Your task to perform on an android device: delete location history Image 0: 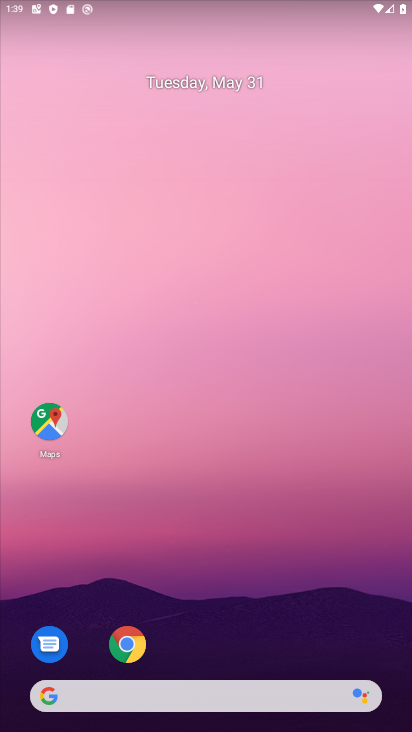
Step 0: click (37, 405)
Your task to perform on an android device: delete location history Image 1: 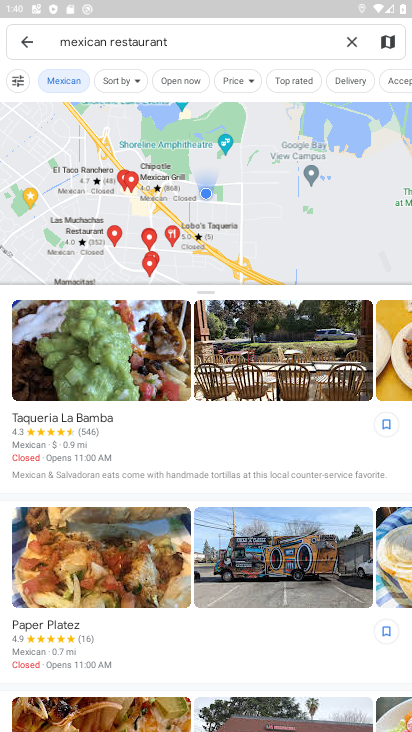
Step 1: click (25, 45)
Your task to perform on an android device: delete location history Image 2: 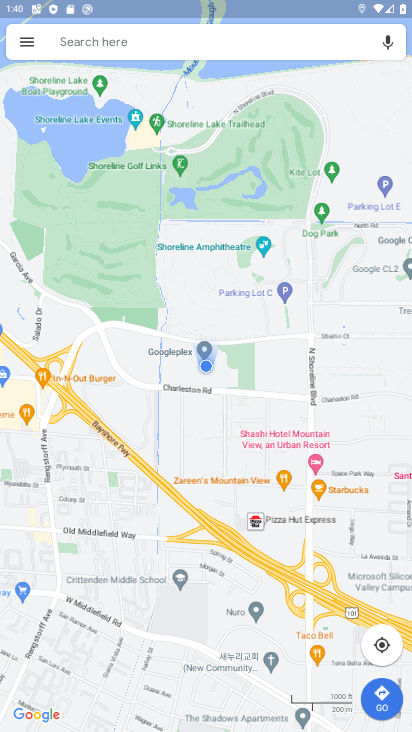
Step 2: click (27, 39)
Your task to perform on an android device: delete location history Image 3: 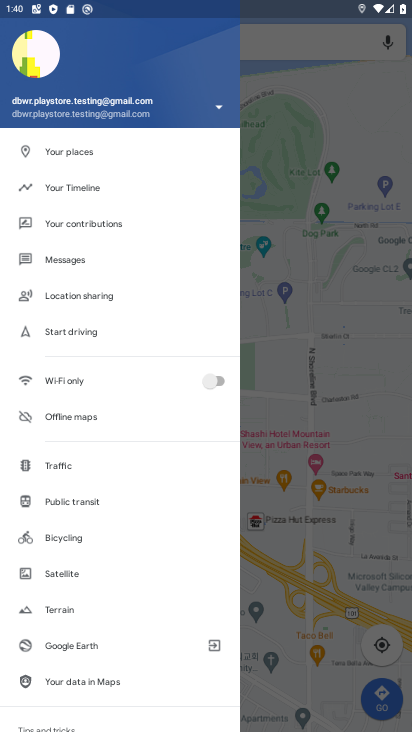
Step 3: click (58, 188)
Your task to perform on an android device: delete location history Image 4: 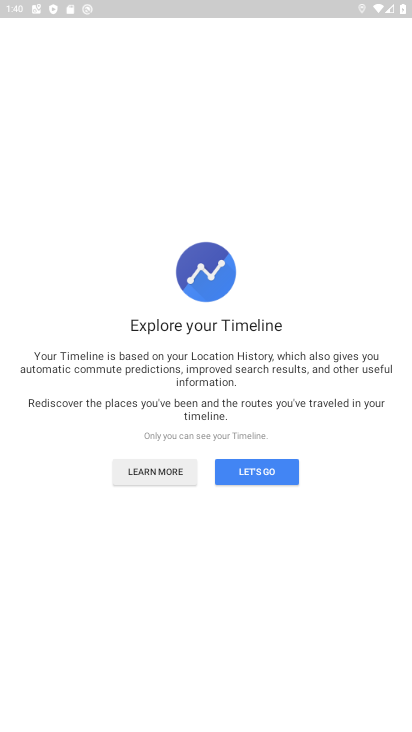
Step 4: click (249, 474)
Your task to perform on an android device: delete location history Image 5: 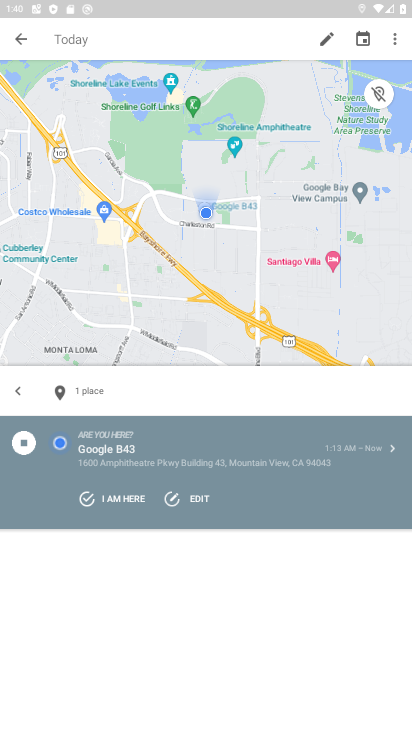
Step 5: click (390, 38)
Your task to perform on an android device: delete location history Image 6: 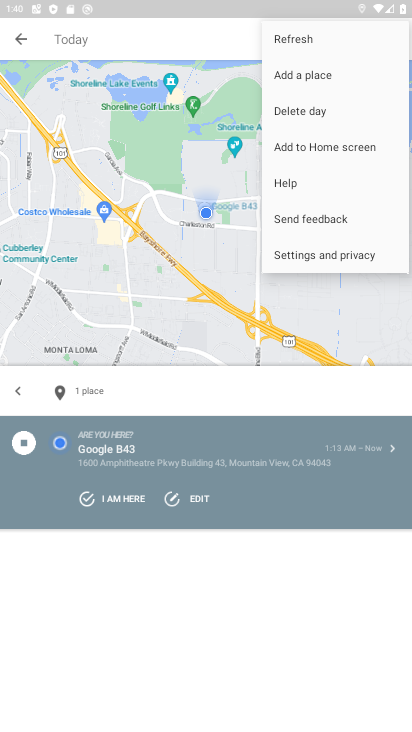
Step 6: click (310, 258)
Your task to perform on an android device: delete location history Image 7: 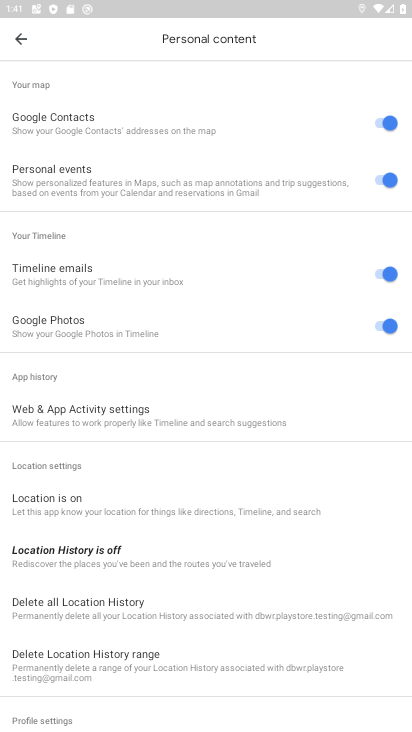
Step 7: click (58, 606)
Your task to perform on an android device: delete location history Image 8: 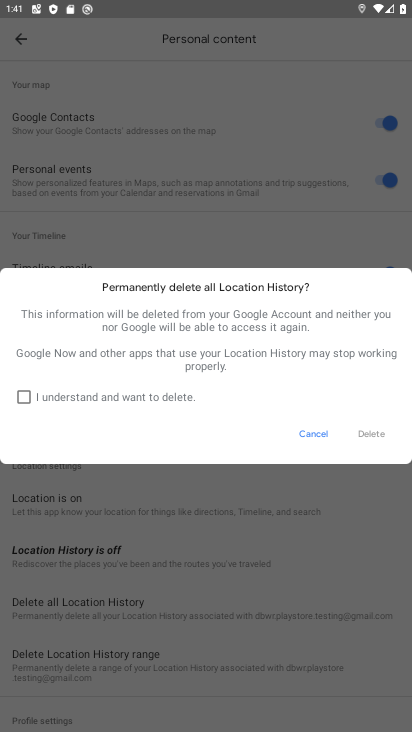
Step 8: click (15, 398)
Your task to perform on an android device: delete location history Image 9: 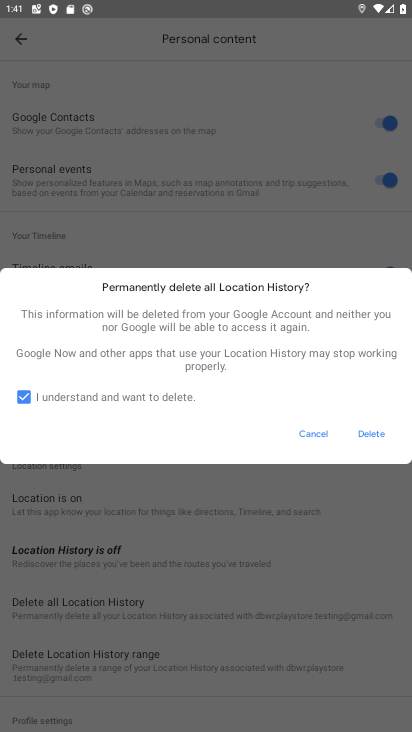
Step 9: click (314, 430)
Your task to perform on an android device: delete location history Image 10: 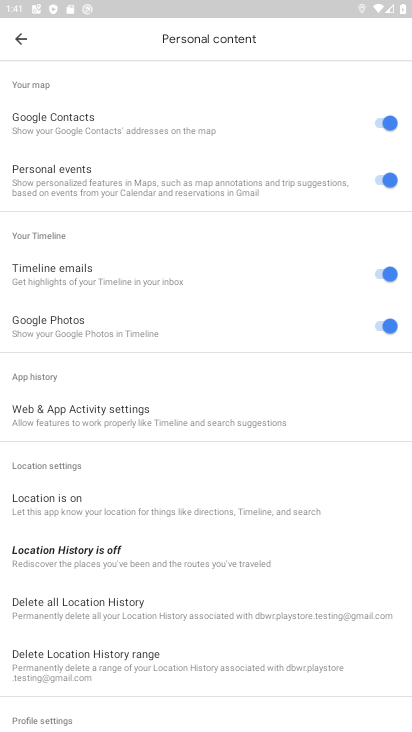
Step 10: click (355, 432)
Your task to perform on an android device: delete location history Image 11: 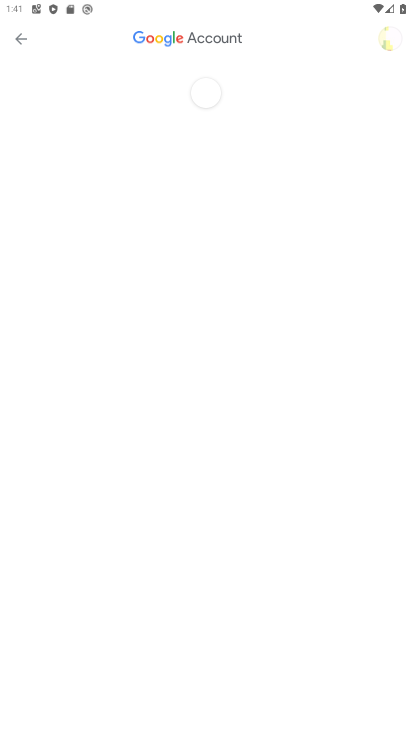
Step 11: press back button
Your task to perform on an android device: delete location history Image 12: 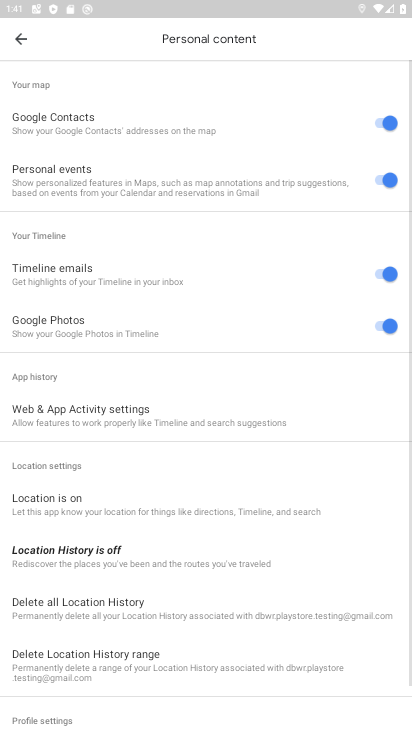
Step 12: click (87, 603)
Your task to perform on an android device: delete location history Image 13: 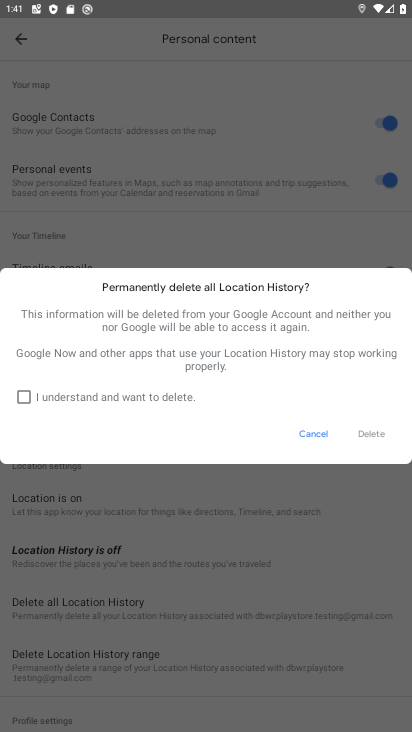
Step 13: click (29, 391)
Your task to perform on an android device: delete location history Image 14: 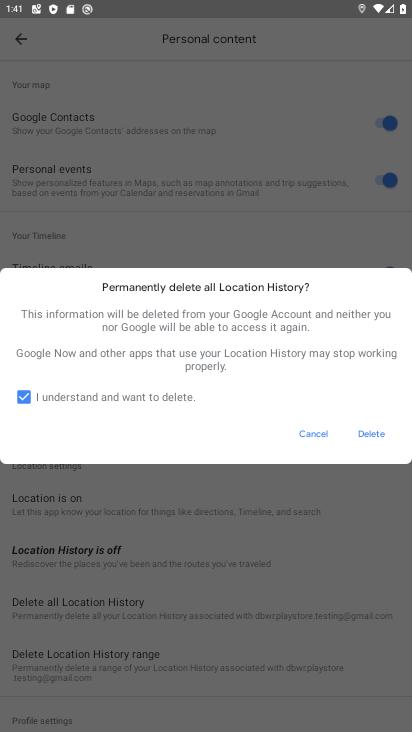
Step 14: click (359, 432)
Your task to perform on an android device: delete location history Image 15: 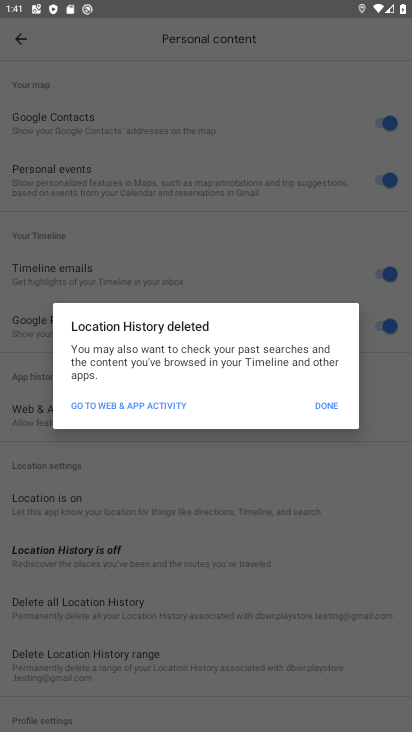
Step 15: click (331, 407)
Your task to perform on an android device: delete location history Image 16: 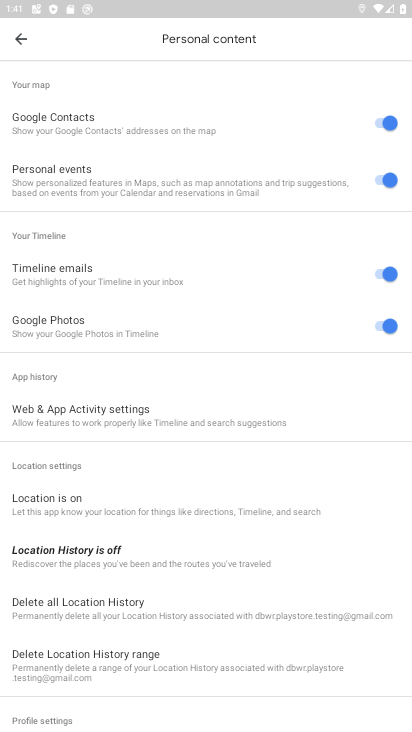
Step 16: task complete